Your task to perform on an android device: change your default location settings in chrome Image 0: 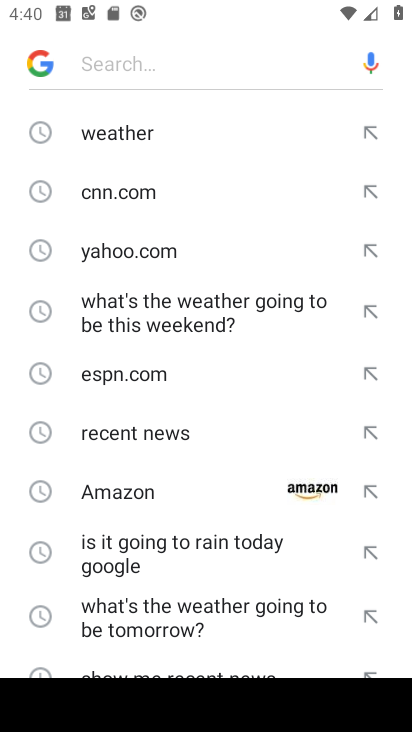
Step 0: press home button
Your task to perform on an android device: change your default location settings in chrome Image 1: 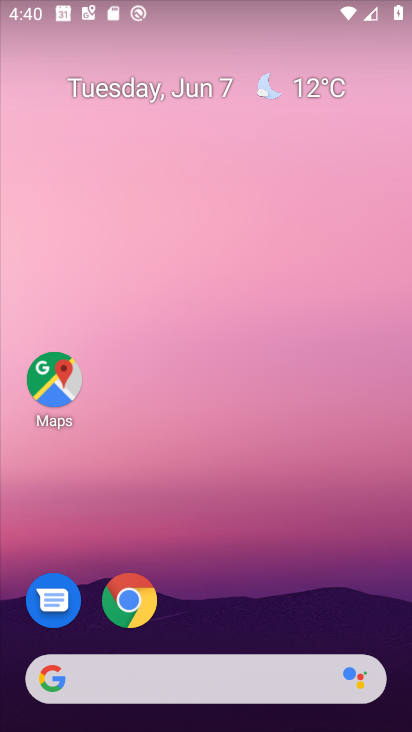
Step 1: drag from (333, 559) to (253, 56)
Your task to perform on an android device: change your default location settings in chrome Image 2: 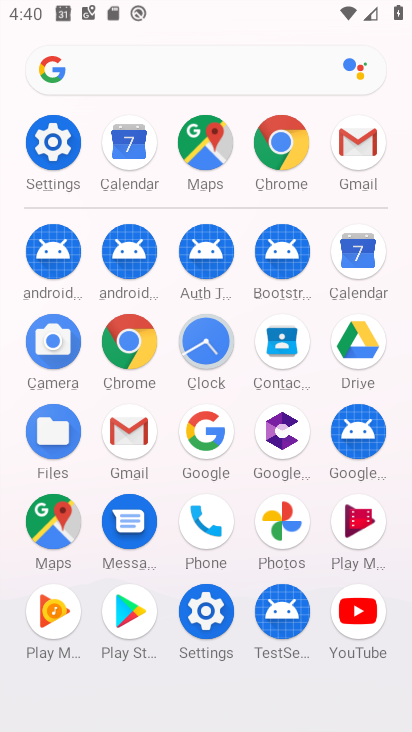
Step 2: click (135, 335)
Your task to perform on an android device: change your default location settings in chrome Image 3: 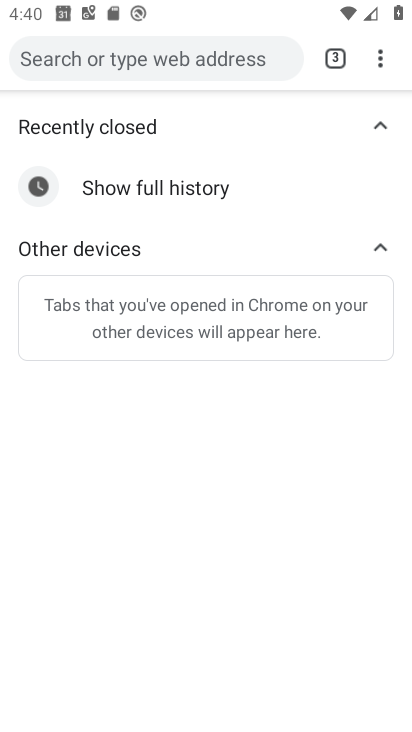
Step 3: click (377, 64)
Your task to perform on an android device: change your default location settings in chrome Image 4: 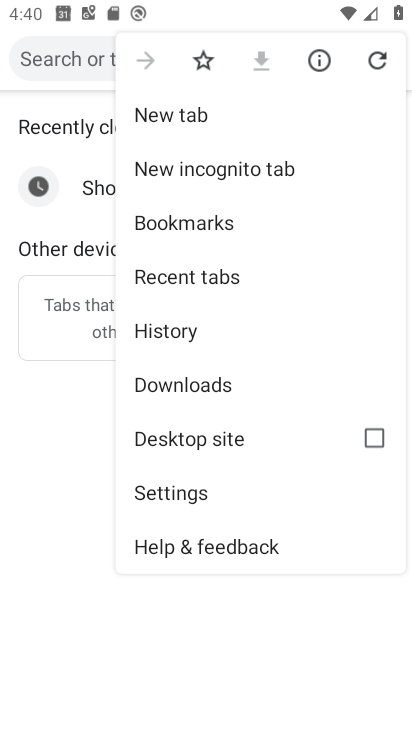
Step 4: click (208, 507)
Your task to perform on an android device: change your default location settings in chrome Image 5: 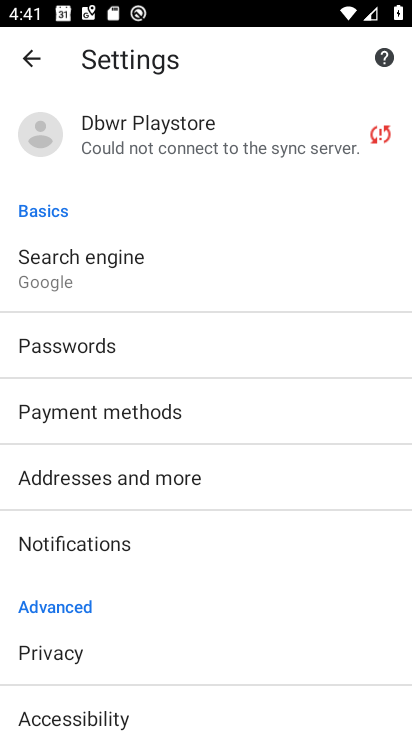
Step 5: click (129, 265)
Your task to perform on an android device: change your default location settings in chrome Image 6: 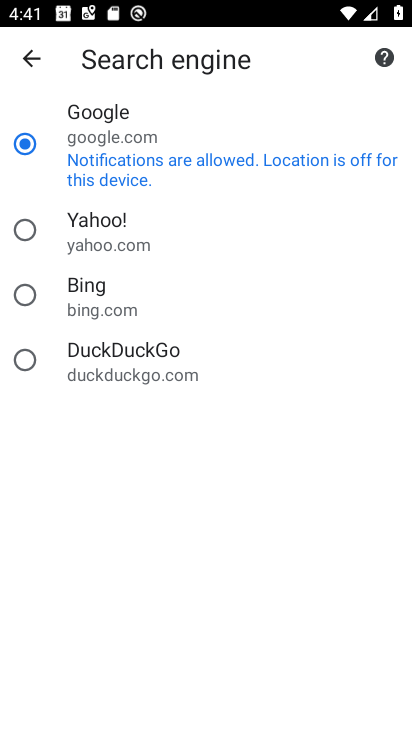
Step 6: click (40, 66)
Your task to perform on an android device: change your default location settings in chrome Image 7: 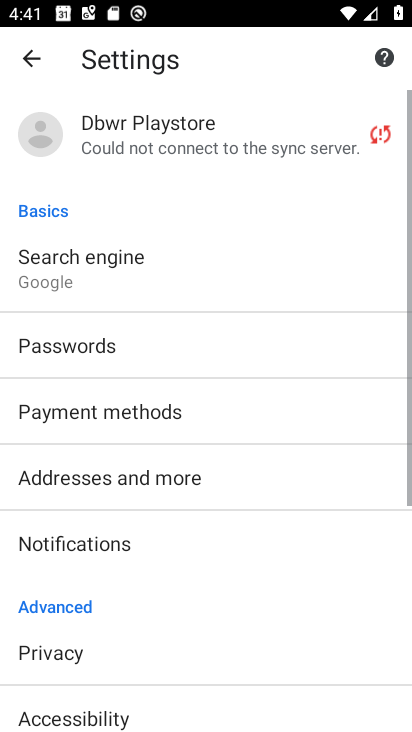
Step 7: drag from (180, 606) to (266, 106)
Your task to perform on an android device: change your default location settings in chrome Image 8: 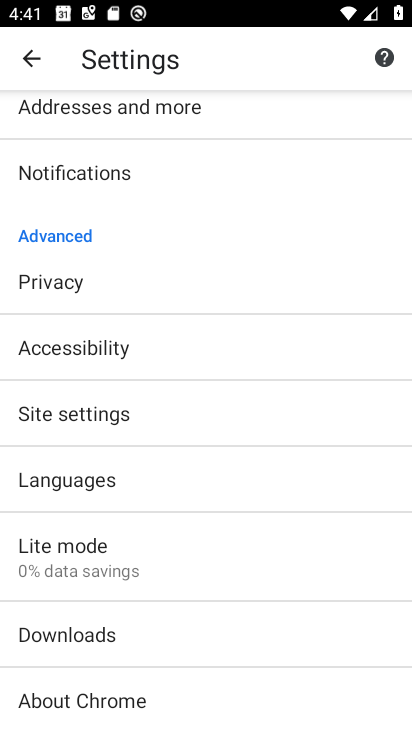
Step 8: click (146, 410)
Your task to perform on an android device: change your default location settings in chrome Image 9: 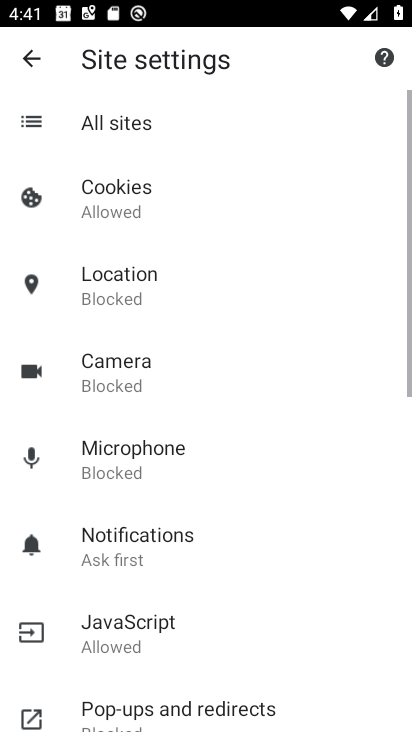
Step 9: click (147, 281)
Your task to perform on an android device: change your default location settings in chrome Image 10: 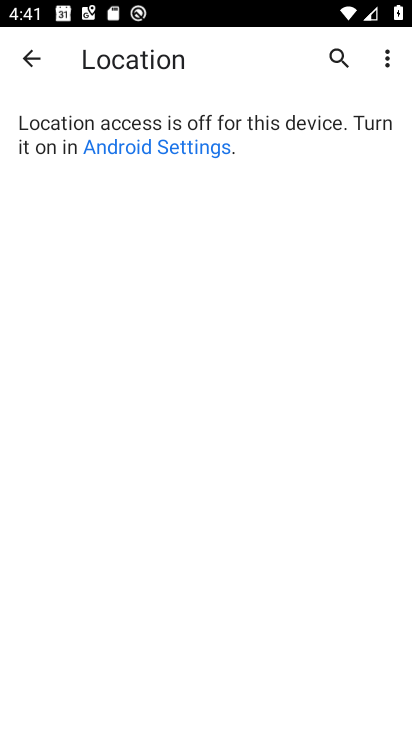
Step 10: task complete